Your task to perform on an android device: Open battery settings Image 0: 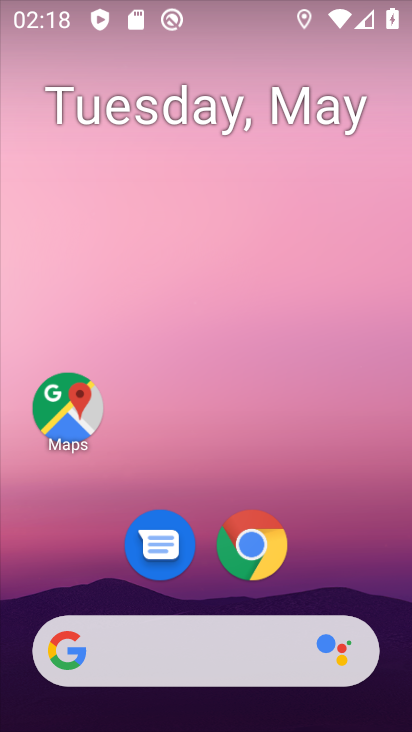
Step 0: drag from (193, 525) to (206, 116)
Your task to perform on an android device: Open battery settings Image 1: 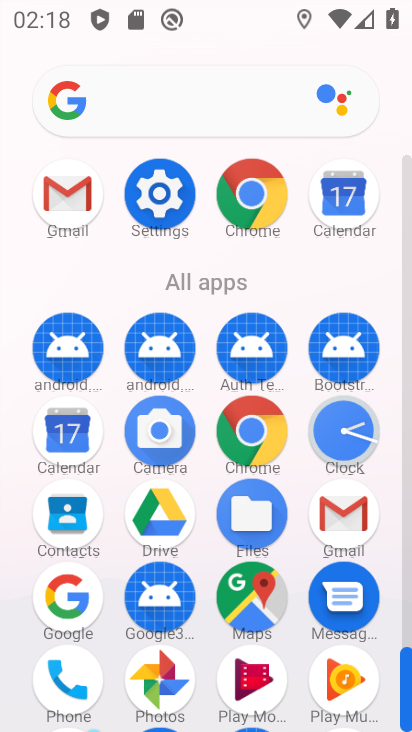
Step 1: click (161, 201)
Your task to perform on an android device: Open battery settings Image 2: 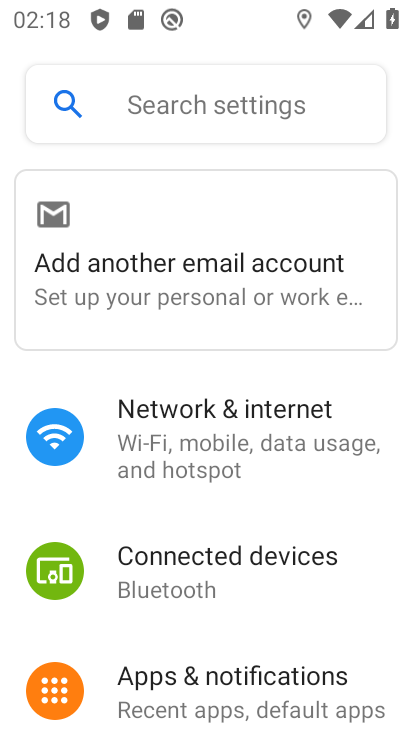
Step 2: drag from (245, 628) to (268, 157)
Your task to perform on an android device: Open battery settings Image 3: 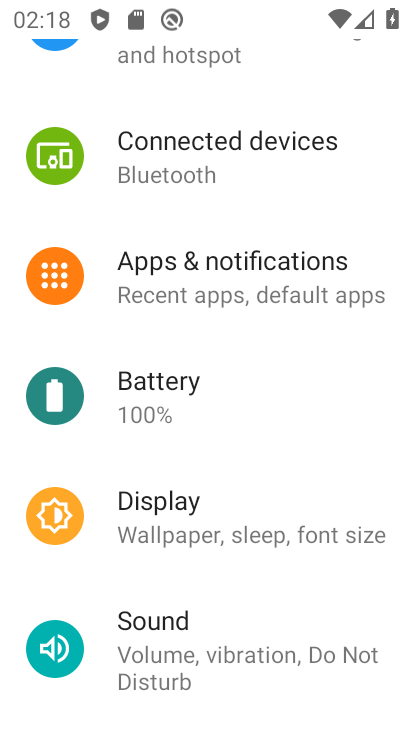
Step 3: click (214, 391)
Your task to perform on an android device: Open battery settings Image 4: 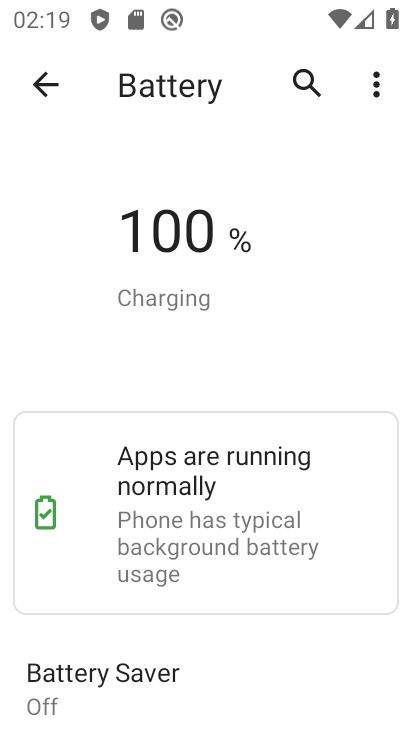
Step 4: task complete